Your task to perform on an android device: change notification settings in the gmail app Image 0: 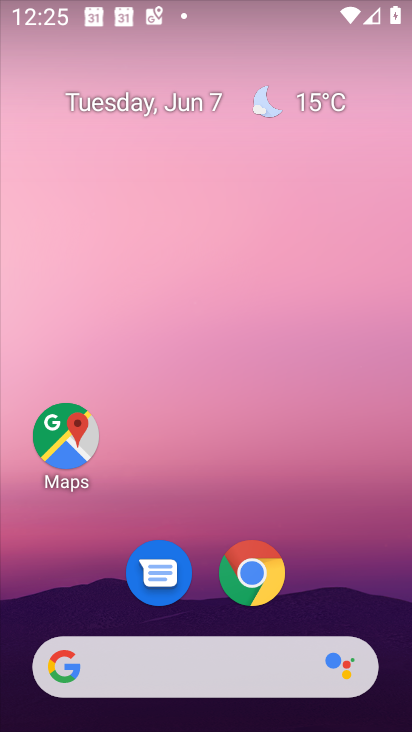
Step 0: drag from (338, 591) to (322, 148)
Your task to perform on an android device: change notification settings in the gmail app Image 1: 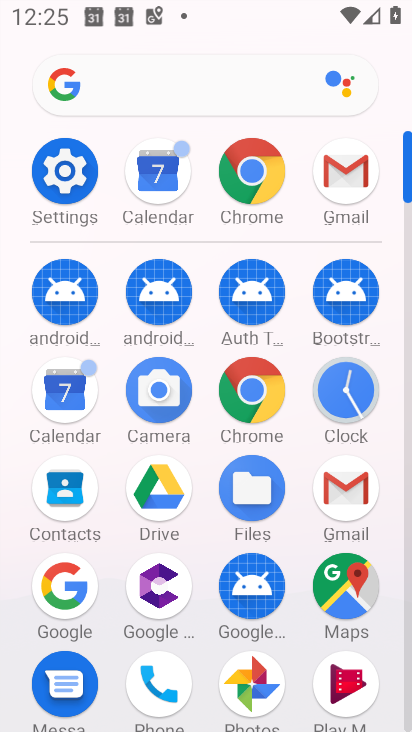
Step 1: click (347, 168)
Your task to perform on an android device: change notification settings in the gmail app Image 2: 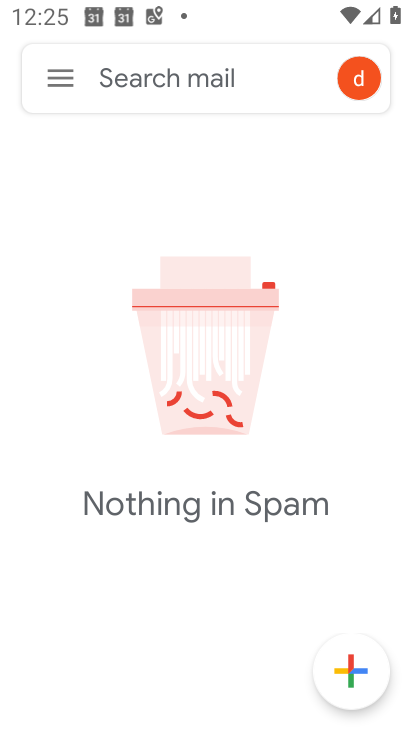
Step 2: click (43, 78)
Your task to perform on an android device: change notification settings in the gmail app Image 3: 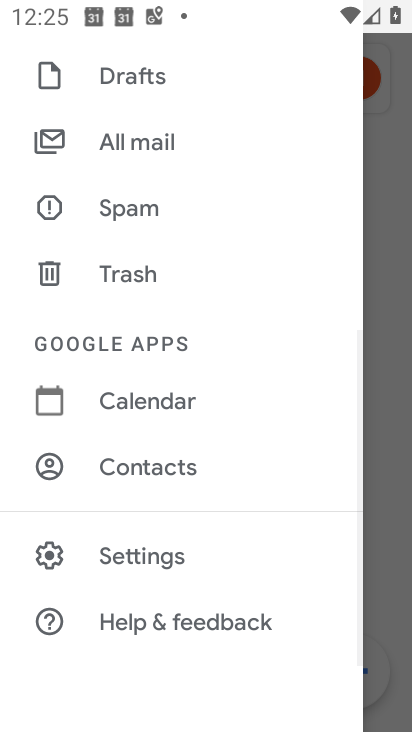
Step 3: click (149, 558)
Your task to perform on an android device: change notification settings in the gmail app Image 4: 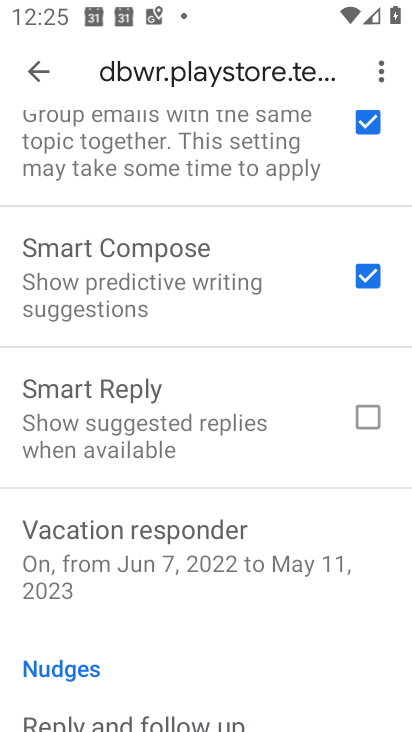
Step 4: drag from (81, 138) to (10, 728)
Your task to perform on an android device: change notification settings in the gmail app Image 5: 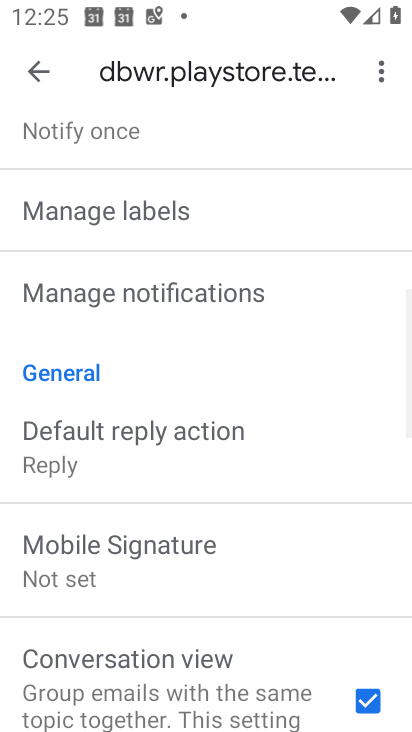
Step 5: click (189, 288)
Your task to perform on an android device: change notification settings in the gmail app Image 6: 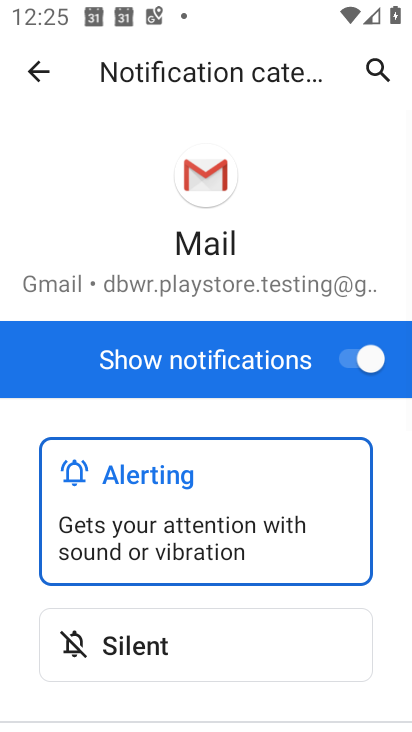
Step 6: click (361, 357)
Your task to perform on an android device: change notification settings in the gmail app Image 7: 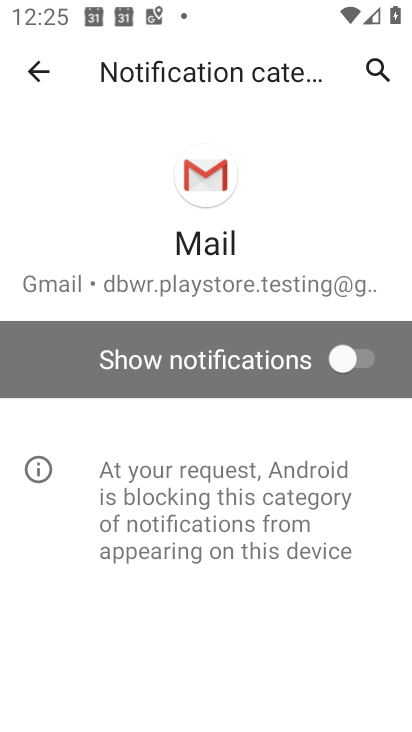
Step 7: task complete